Your task to perform on an android device: toggle airplane mode Image 0: 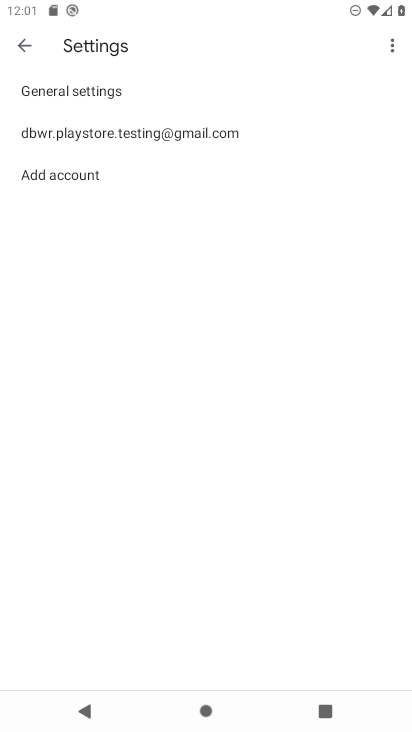
Step 0: press home button
Your task to perform on an android device: toggle airplane mode Image 1: 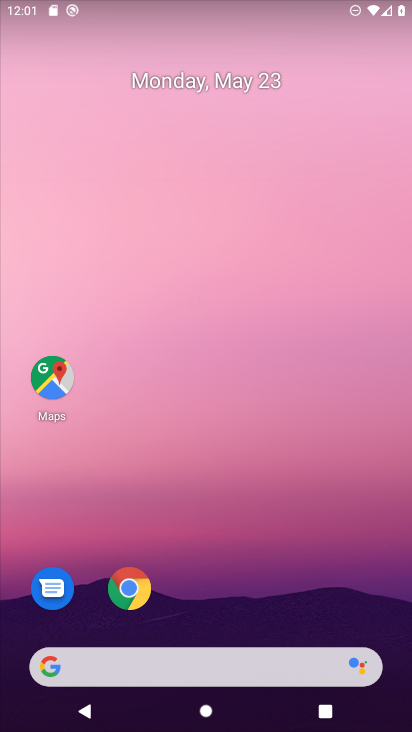
Step 1: drag from (190, 652) to (236, 327)
Your task to perform on an android device: toggle airplane mode Image 2: 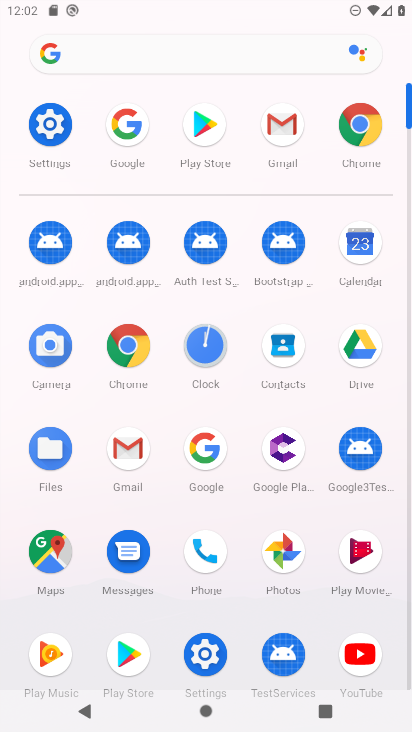
Step 2: click (47, 130)
Your task to perform on an android device: toggle airplane mode Image 3: 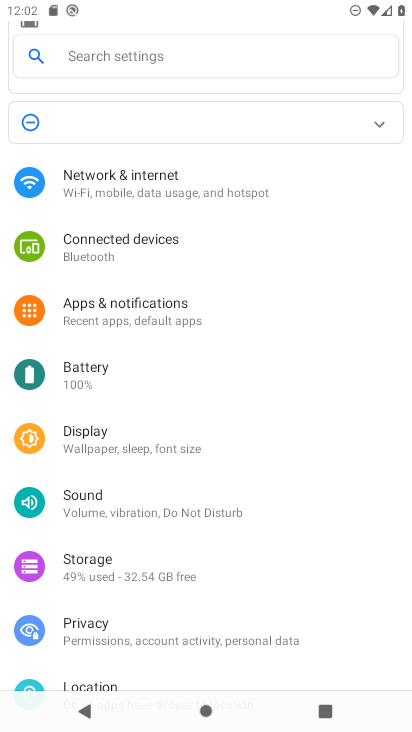
Step 3: click (99, 166)
Your task to perform on an android device: toggle airplane mode Image 4: 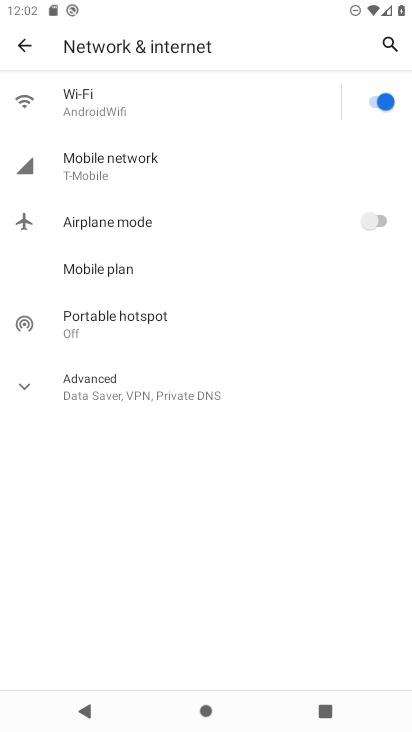
Step 4: click (99, 166)
Your task to perform on an android device: toggle airplane mode Image 5: 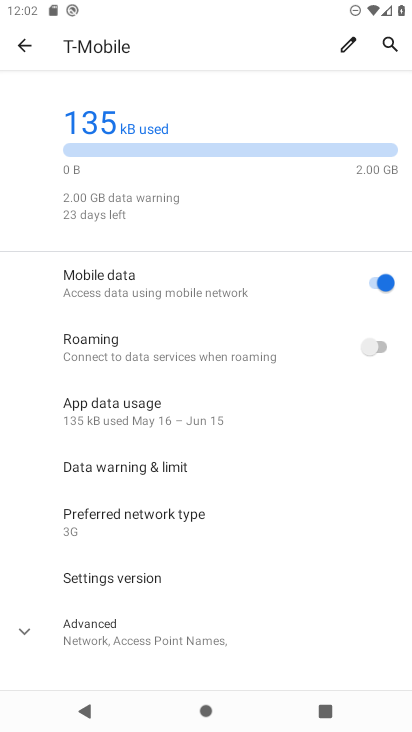
Step 5: click (31, 56)
Your task to perform on an android device: toggle airplane mode Image 6: 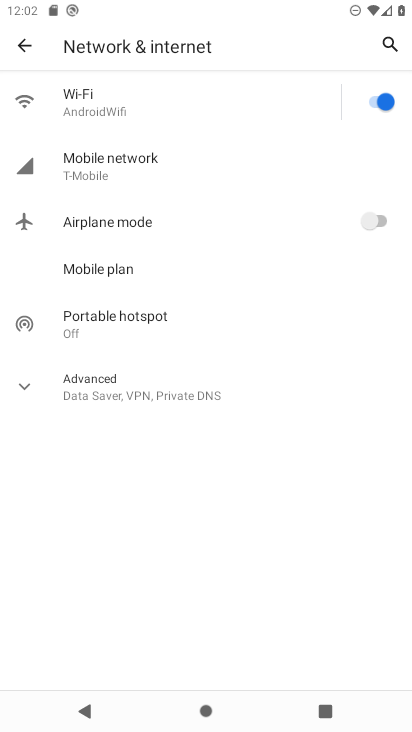
Step 6: click (388, 218)
Your task to perform on an android device: toggle airplane mode Image 7: 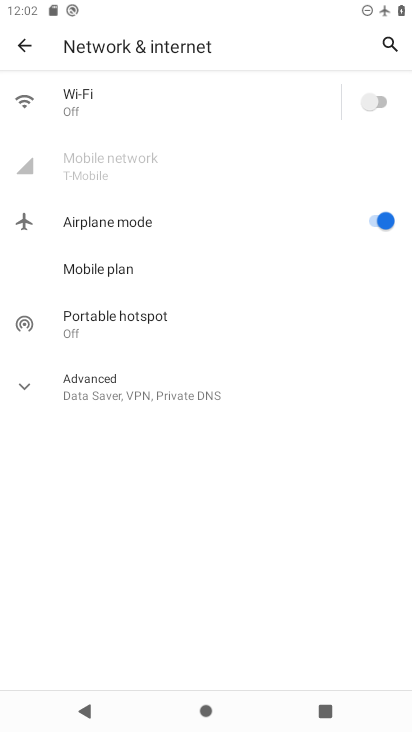
Step 7: task complete